Your task to perform on an android device: uninstall "DuckDuckGo Privacy Browser" Image 0: 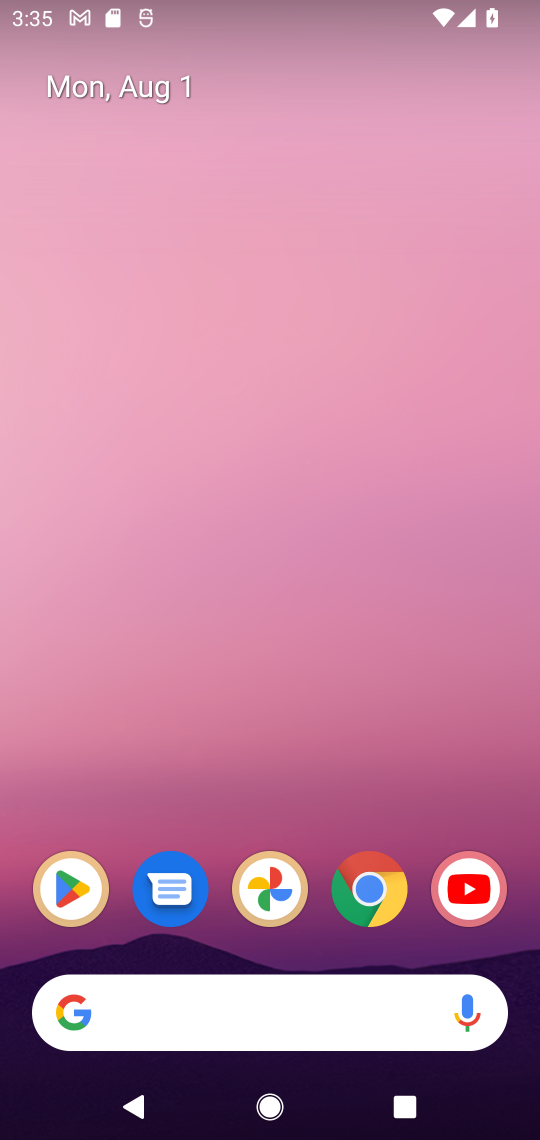
Step 0: click (64, 899)
Your task to perform on an android device: uninstall "DuckDuckGo Privacy Browser" Image 1: 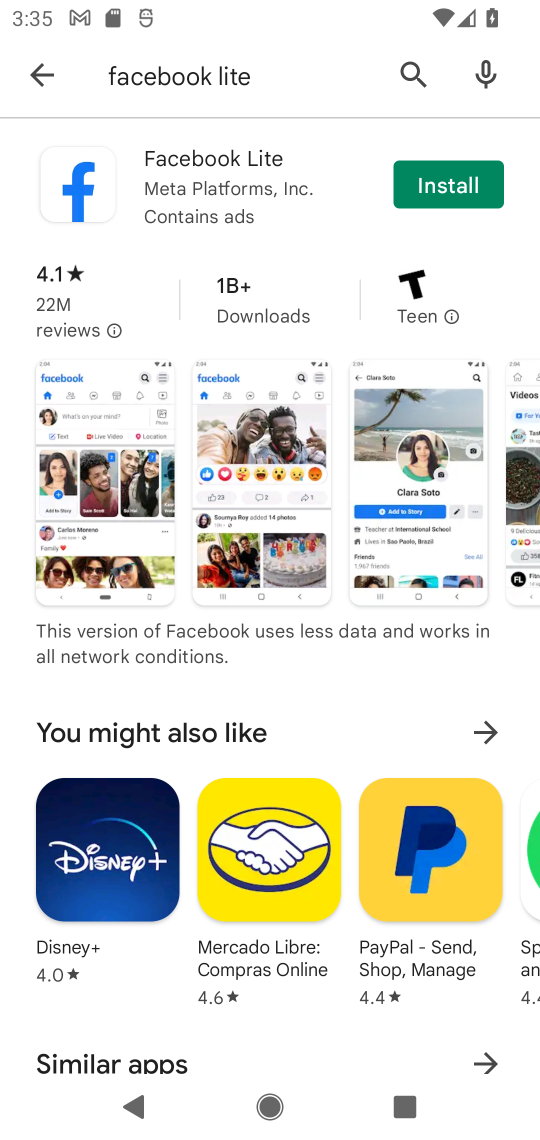
Step 1: click (424, 60)
Your task to perform on an android device: uninstall "DuckDuckGo Privacy Browser" Image 2: 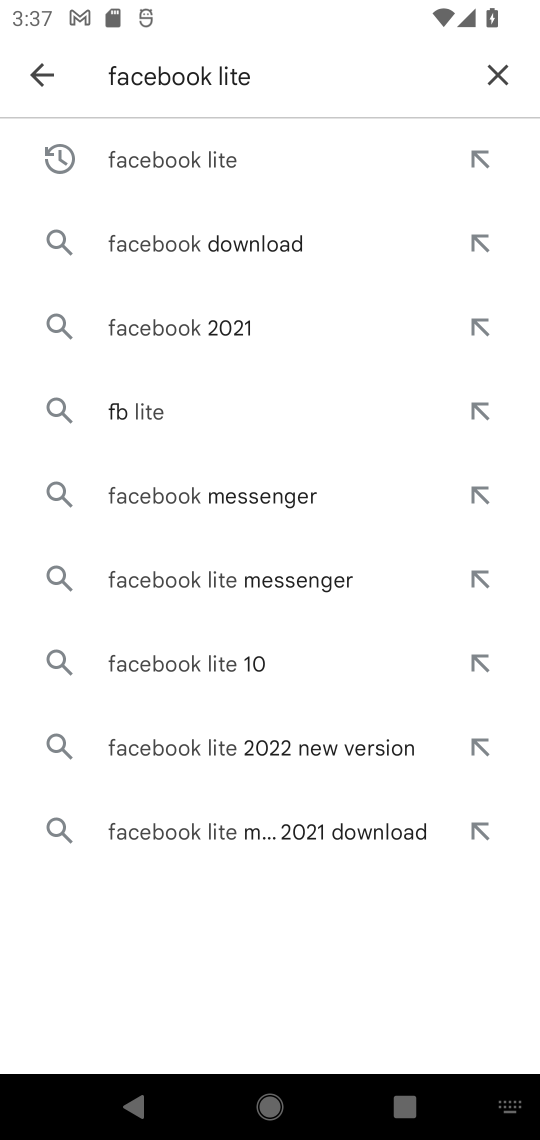
Step 2: click (498, 79)
Your task to perform on an android device: uninstall "DuckDuckGo Privacy Browser" Image 3: 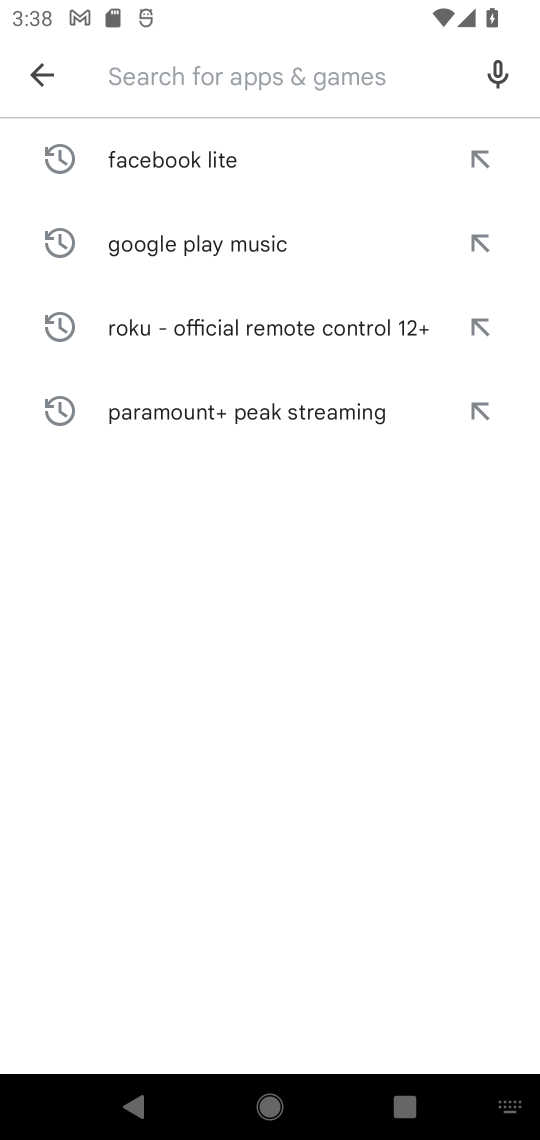
Step 3: type "DuckDuckGo Privacy Browser"
Your task to perform on an android device: uninstall "DuckDuckGo Privacy Browser" Image 4: 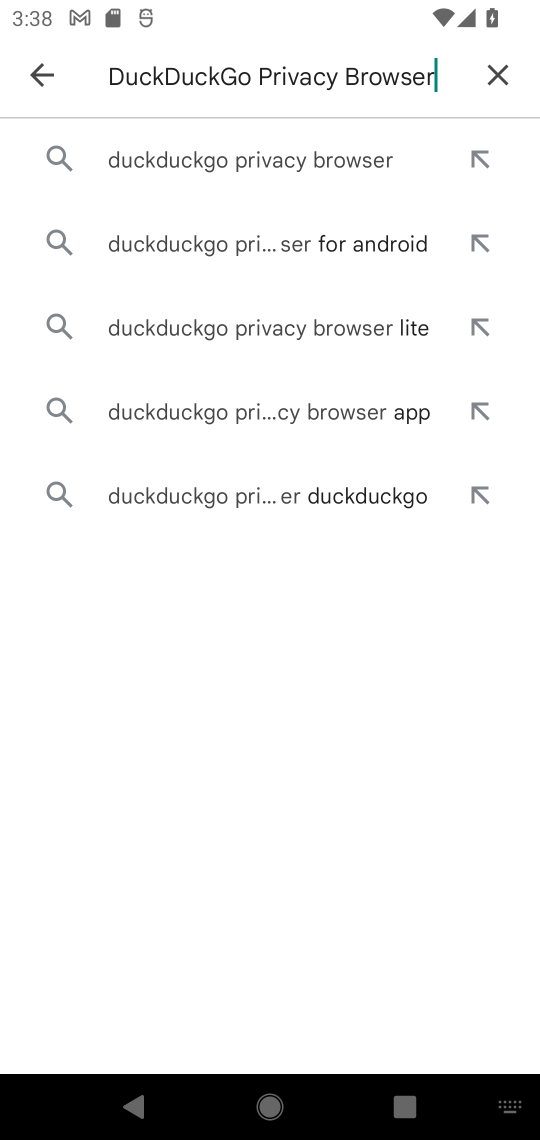
Step 4: click (202, 148)
Your task to perform on an android device: uninstall "DuckDuckGo Privacy Browser" Image 5: 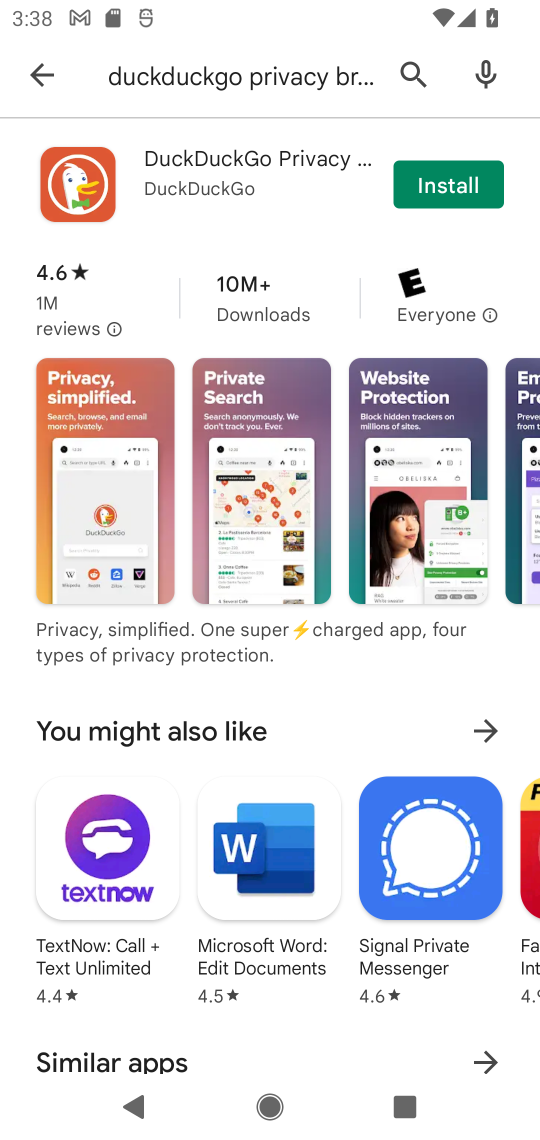
Step 5: task complete